Your task to perform on an android device: Open Reddit.com Image 0: 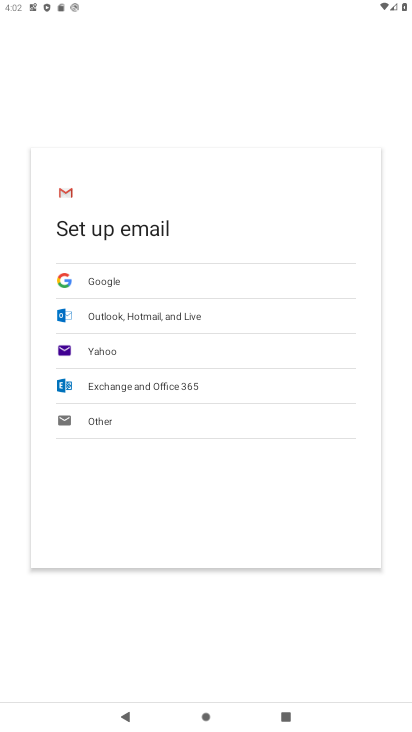
Step 0: press home button
Your task to perform on an android device: Open Reddit.com Image 1: 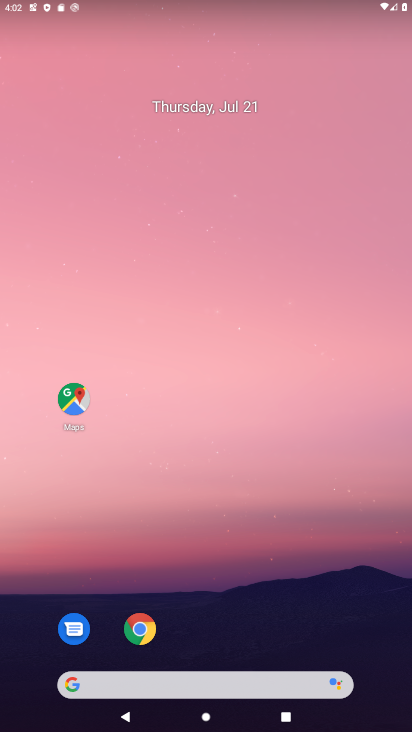
Step 1: click (141, 641)
Your task to perform on an android device: Open Reddit.com Image 2: 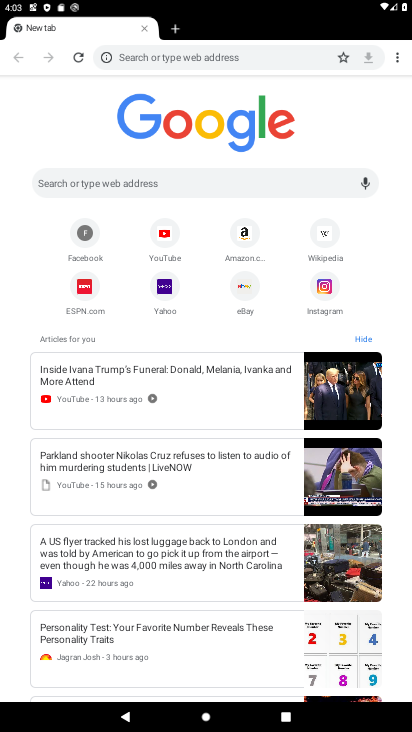
Step 2: click (119, 193)
Your task to perform on an android device: Open Reddit.com Image 3: 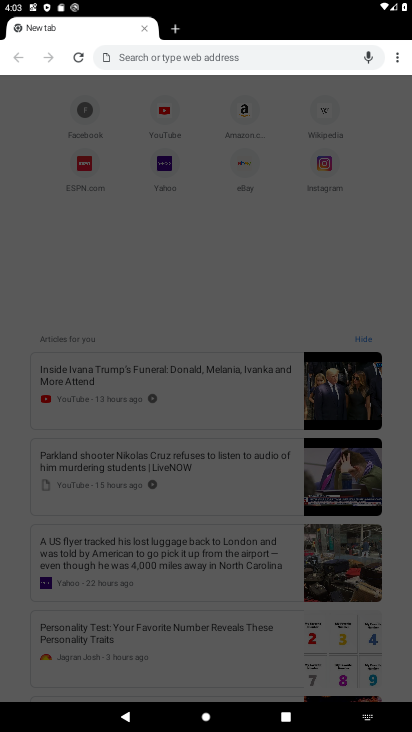
Step 3: type "Reddit.com"
Your task to perform on an android device: Open Reddit.com Image 4: 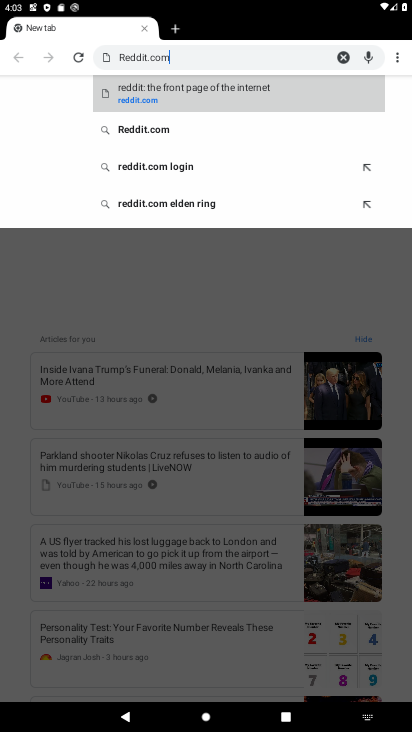
Step 4: click (175, 127)
Your task to perform on an android device: Open Reddit.com Image 5: 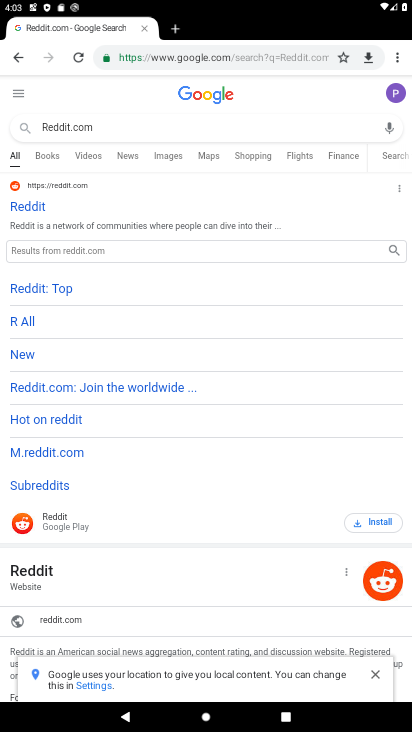
Step 5: click (38, 208)
Your task to perform on an android device: Open Reddit.com Image 6: 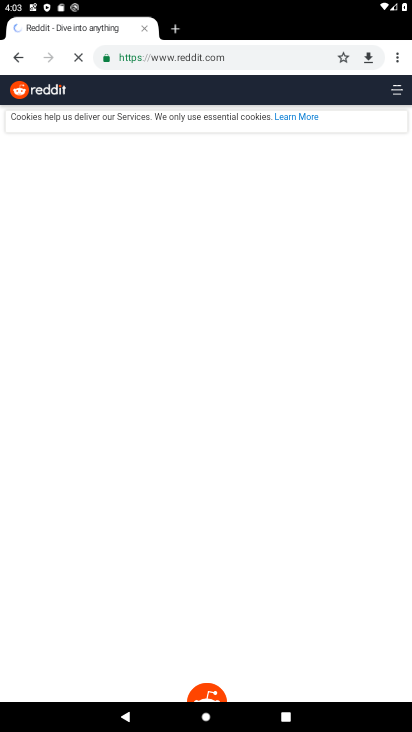
Step 6: task complete